Your task to perform on an android device: Open Google Image 0: 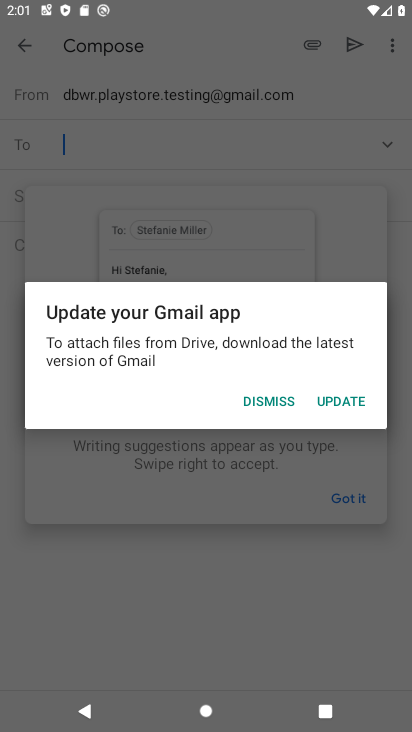
Step 0: press home button
Your task to perform on an android device: Open Google Image 1: 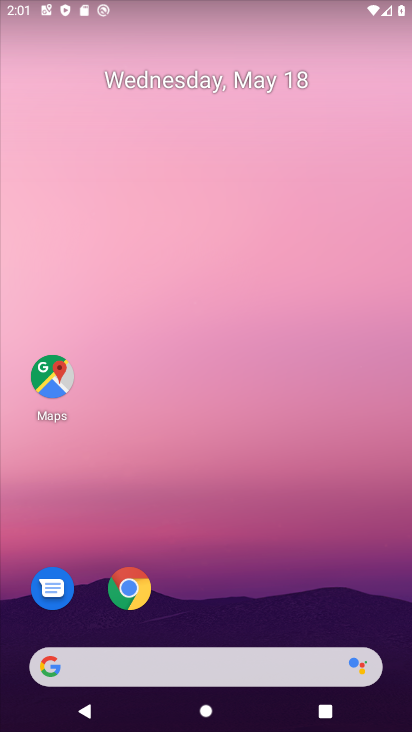
Step 1: drag from (352, 594) to (362, 117)
Your task to perform on an android device: Open Google Image 2: 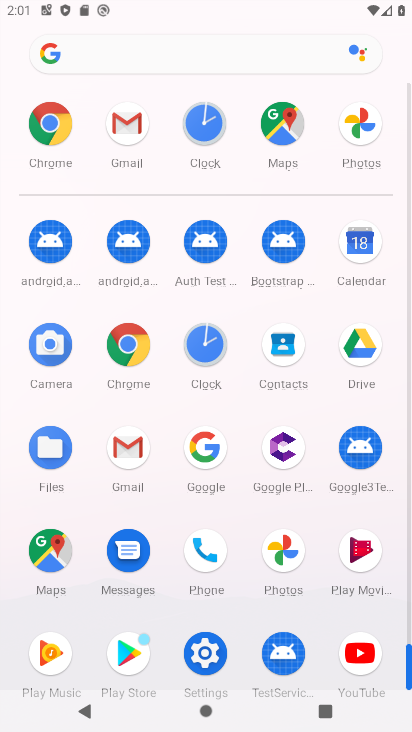
Step 2: click (209, 457)
Your task to perform on an android device: Open Google Image 3: 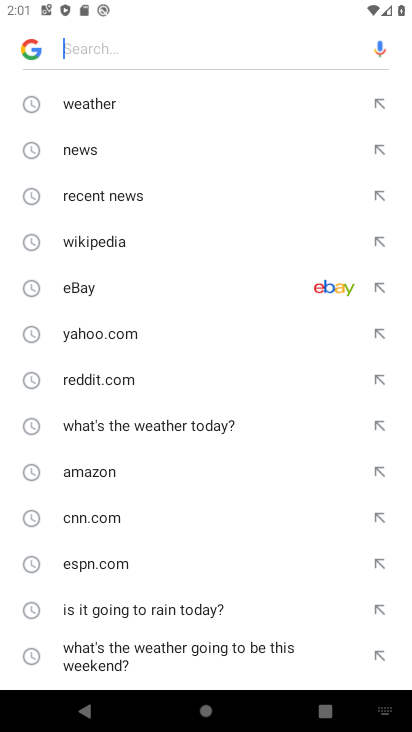
Step 3: task complete